Your task to perform on an android device: Go to location settings Image 0: 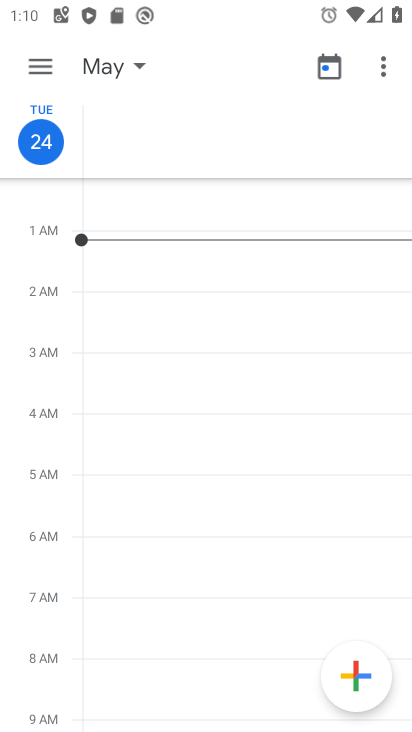
Step 0: press home button
Your task to perform on an android device: Go to location settings Image 1: 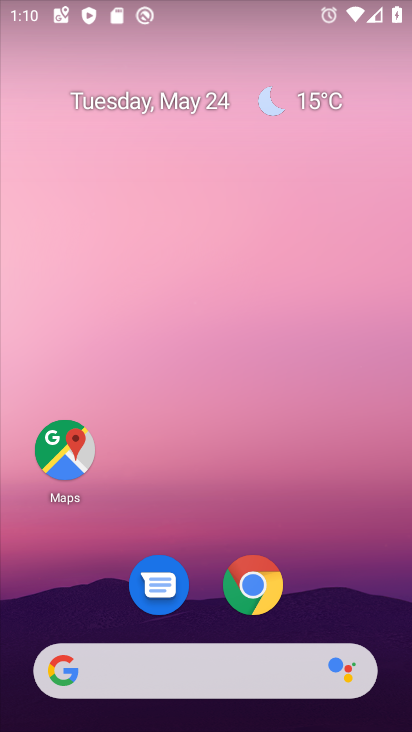
Step 1: drag from (254, 539) to (254, 64)
Your task to perform on an android device: Go to location settings Image 2: 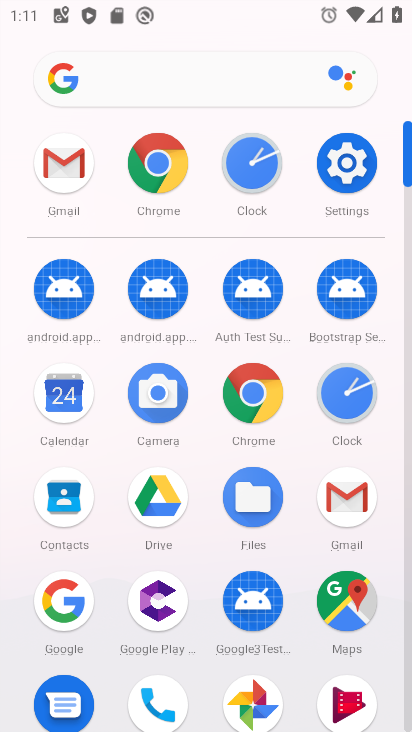
Step 2: click (338, 156)
Your task to perform on an android device: Go to location settings Image 3: 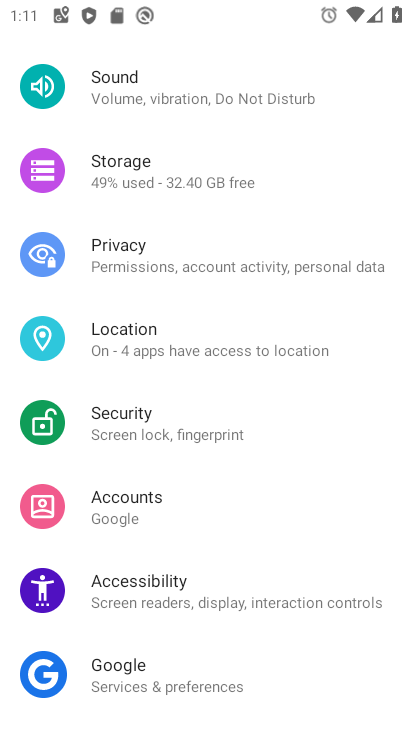
Step 3: click (273, 341)
Your task to perform on an android device: Go to location settings Image 4: 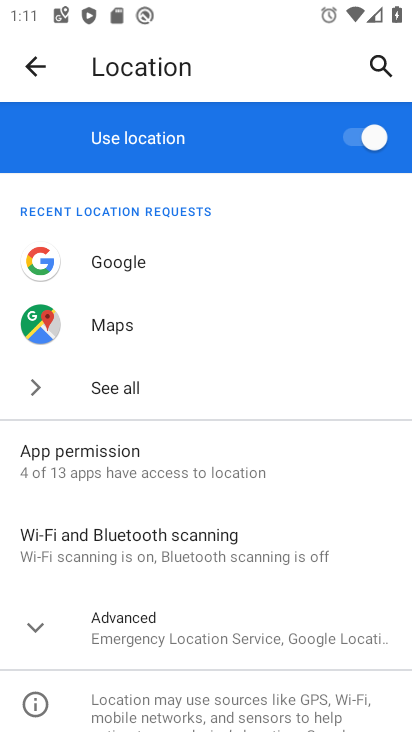
Step 4: task complete